Your task to perform on an android device: turn smart compose on in the gmail app Image 0: 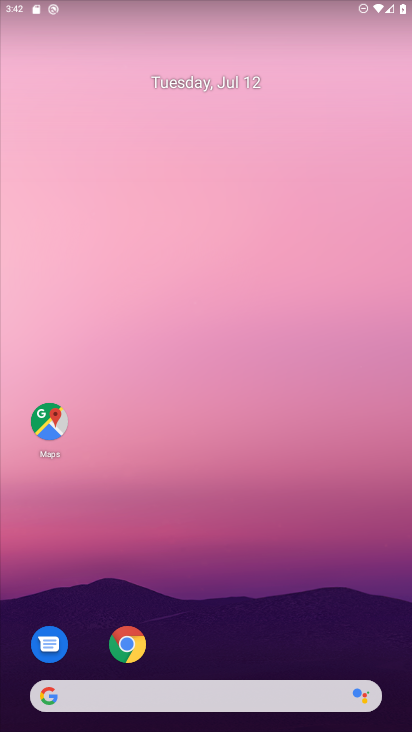
Step 0: drag from (209, 504) to (175, 74)
Your task to perform on an android device: turn smart compose on in the gmail app Image 1: 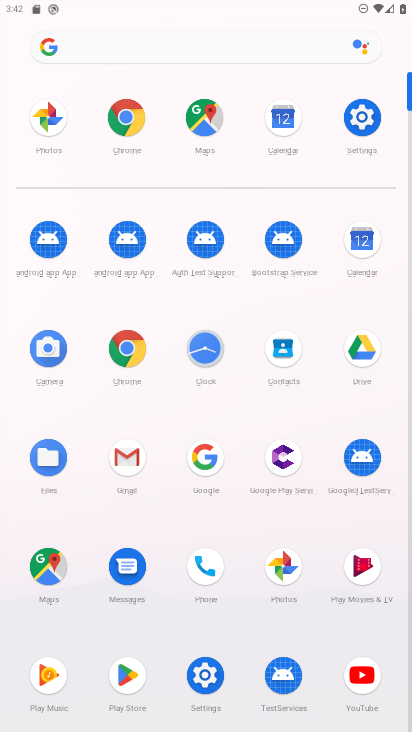
Step 1: click (132, 461)
Your task to perform on an android device: turn smart compose on in the gmail app Image 2: 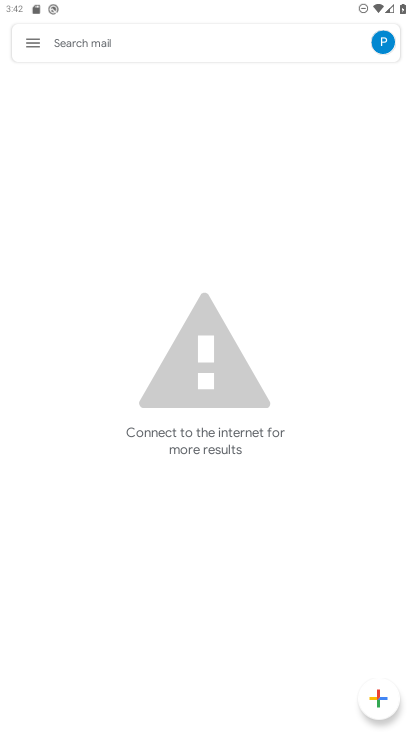
Step 2: click (33, 41)
Your task to perform on an android device: turn smart compose on in the gmail app Image 3: 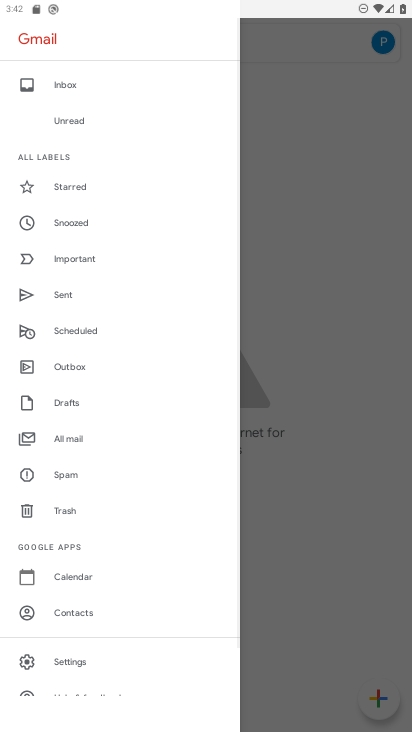
Step 3: click (64, 663)
Your task to perform on an android device: turn smart compose on in the gmail app Image 4: 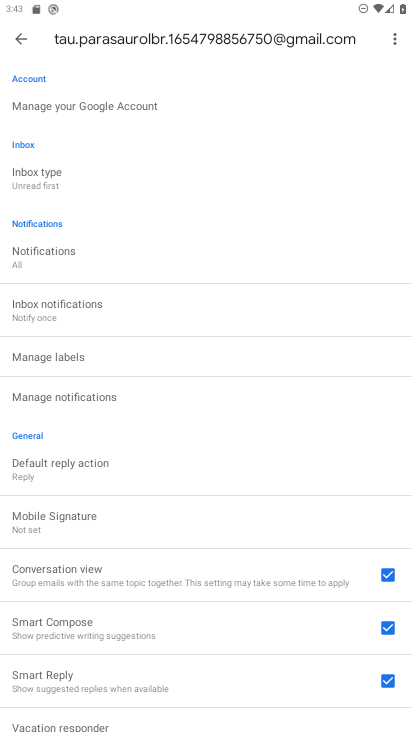
Step 4: task complete